Your task to perform on an android device: Open Yahoo.com Image 0: 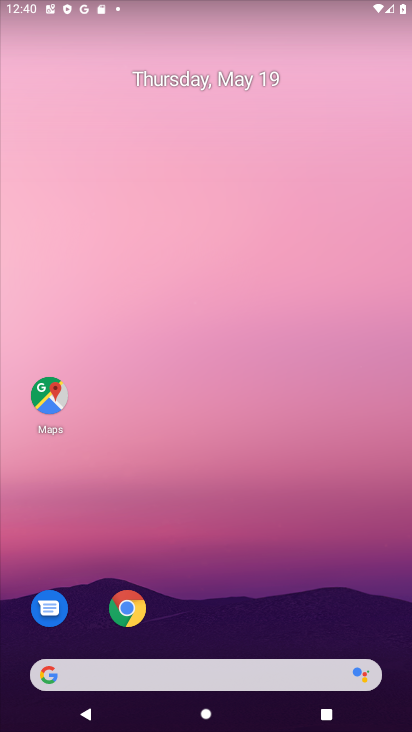
Step 0: drag from (213, 595) to (243, 212)
Your task to perform on an android device: Open Yahoo.com Image 1: 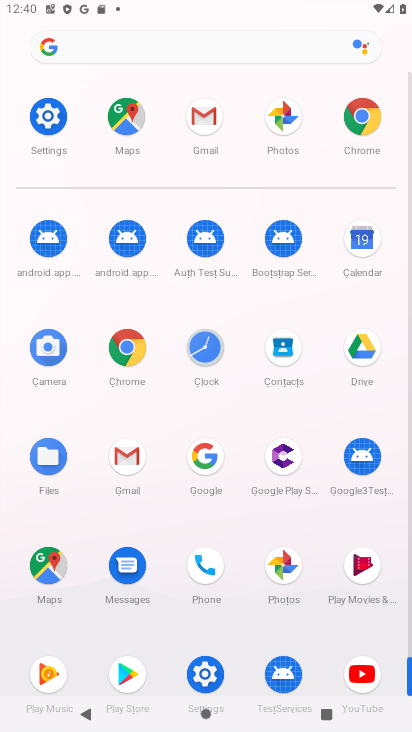
Step 1: click (125, 347)
Your task to perform on an android device: Open Yahoo.com Image 2: 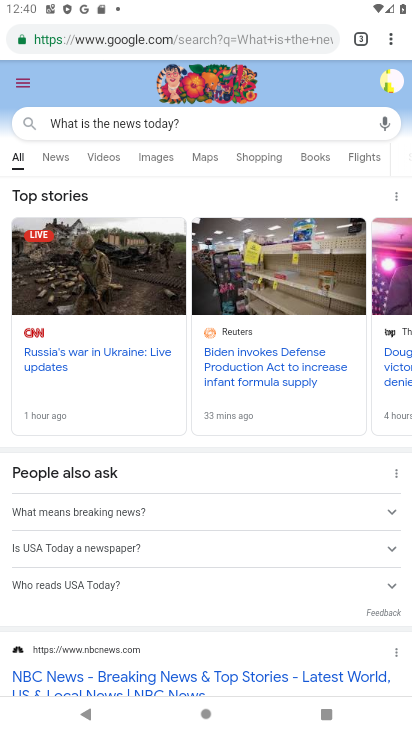
Step 2: click (391, 35)
Your task to perform on an android device: Open Yahoo.com Image 3: 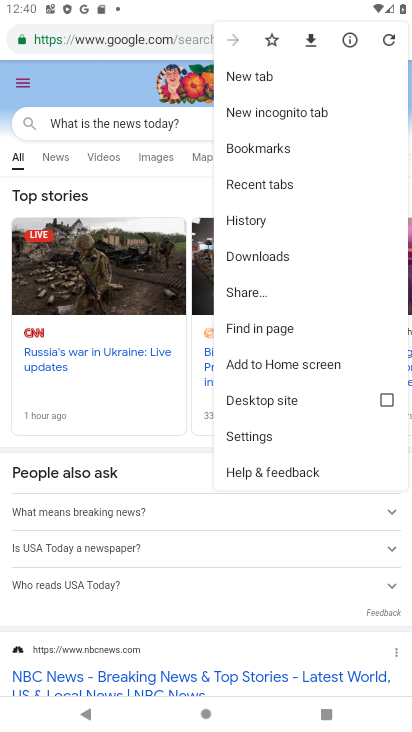
Step 3: click (256, 80)
Your task to perform on an android device: Open Yahoo.com Image 4: 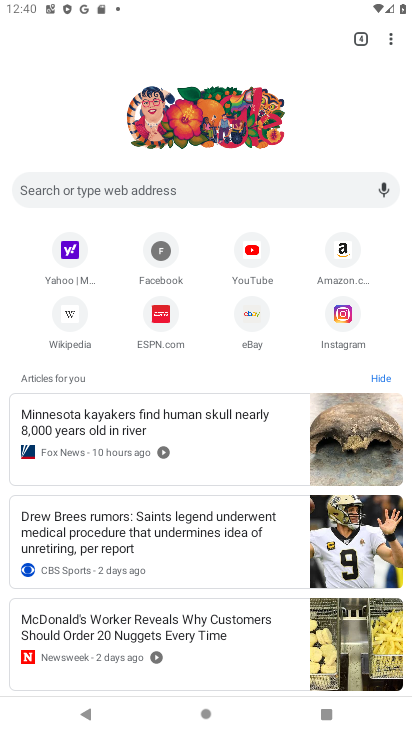
Step 4: click (72, 244)
Your task to perform on an android device: Open Yahoo.com Image 5: 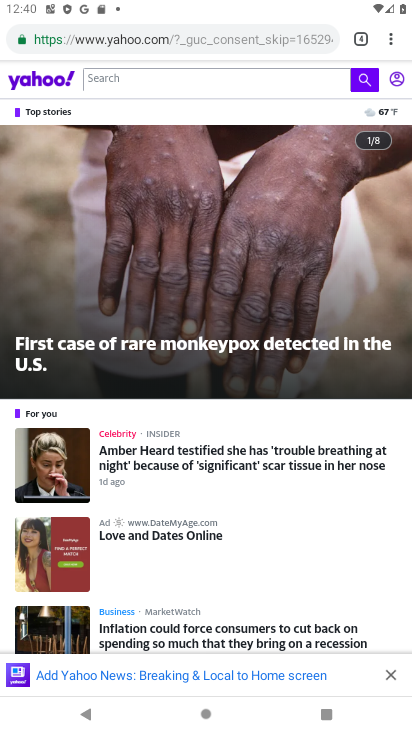
Step 5: task complete